Your task to perform on an android device: change your default location settings in chrome Image 0: 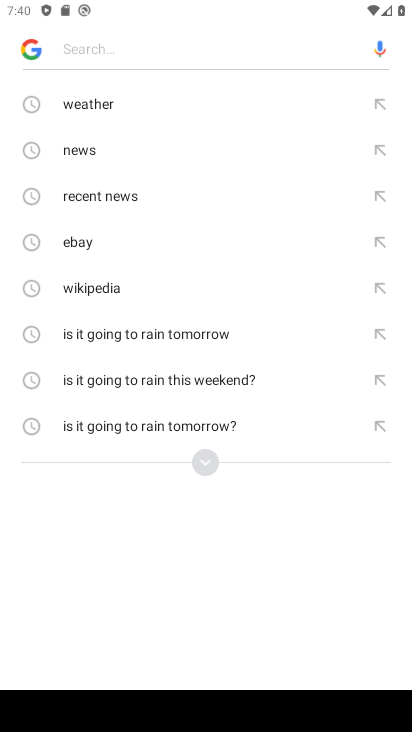
Step 0: press home button
Your task to perform on an android device: change your default location settings in chrome Image 1: 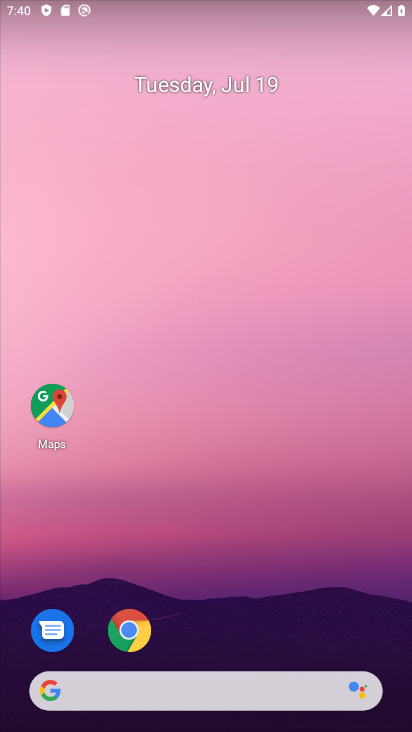
Step 1: click (129, 639)
Your task to perform on an android device: change your default location settings in chrome Image 2: 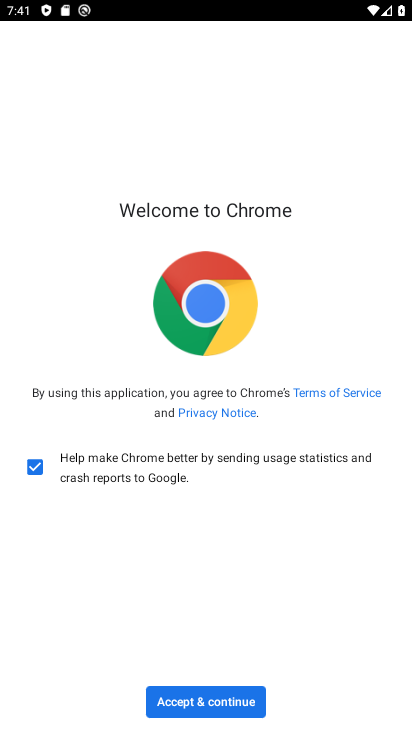
Step 2: click (228, 694)
Your task to perform on an android device: change your default location settings in chrome Image 3: 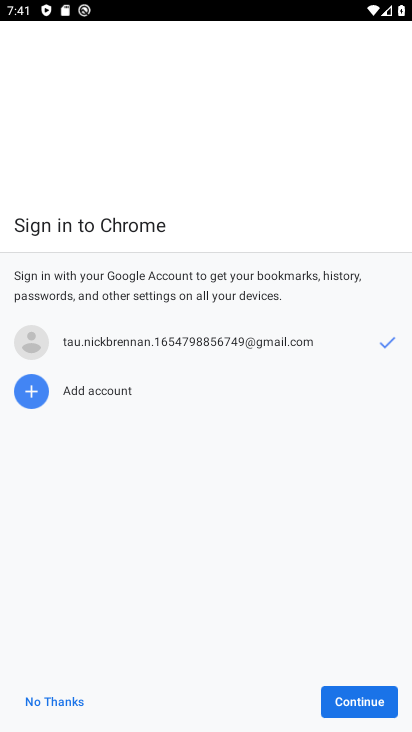
Step 3: click (340, 711)
Your task to perform on an android device: change your default location settings in chrome Image 4: 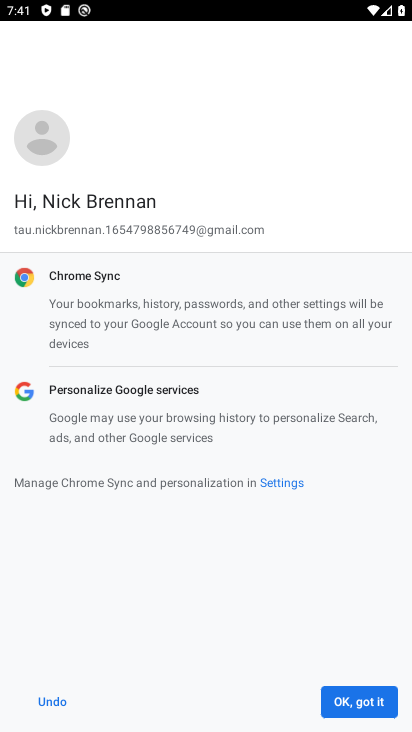
Step 4: click (340, 711)
Your task to perform on an android device: change your default location settings in chrome Image 5: 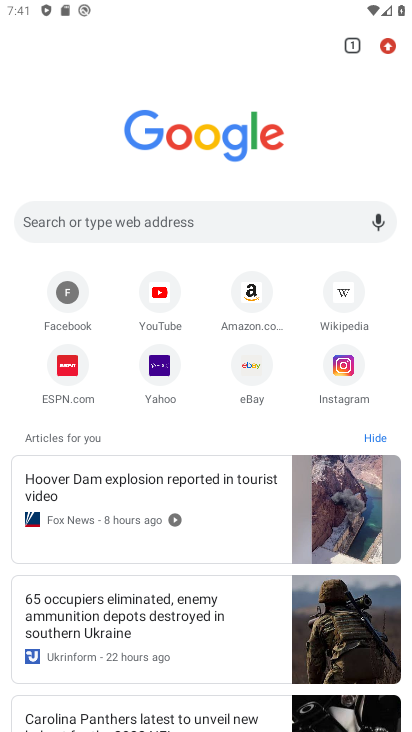
Step 5: click (390, 44)
Your task to perform on an android device: change your default location settings in chrome Image 6: 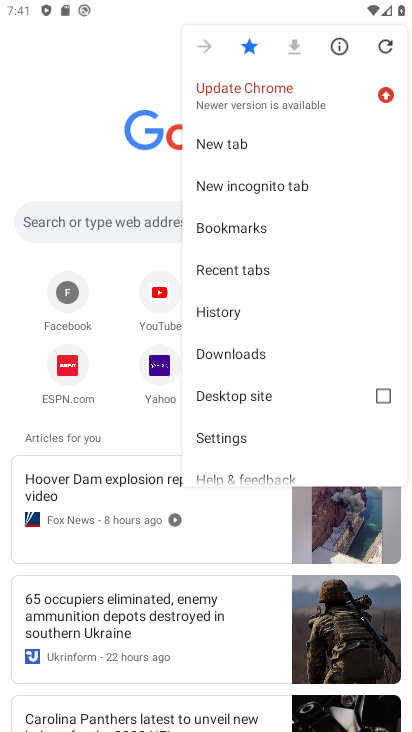
Step 6: click (239, 449)
Your task to perform on an android device: change your default location settings in chrome Image 7: 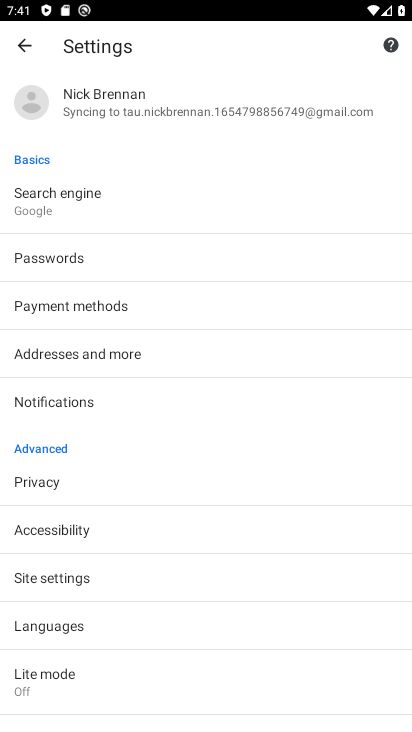
Step 7: drag from (169, 602) to (218, 85)
Your task to perform on an android device: change your default location settings in chrome Image 8: 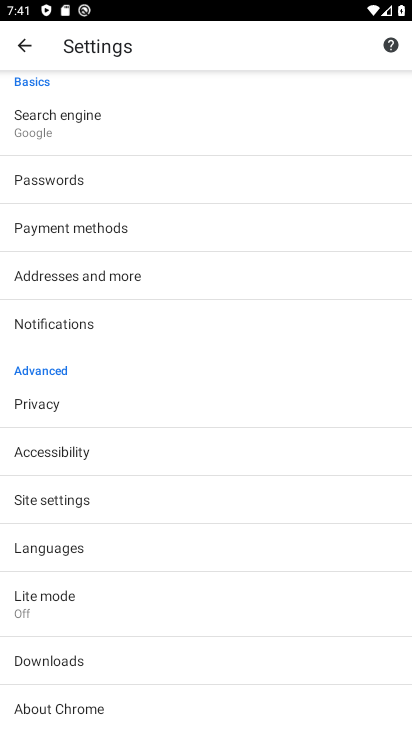
Step 8: drag from (234, 190) to (177, 382)
Your task to perform on an android device: change your default location settings in chrome Image 9: 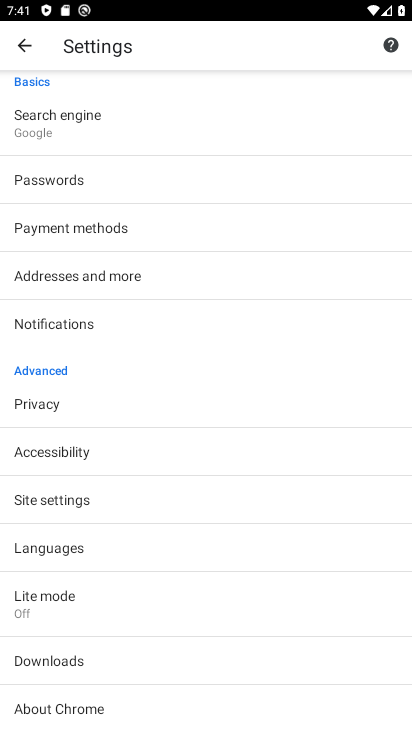
Step 9: click (61, 509)
Your task to perform on an android device: change your default location settings in chrome Image 10: 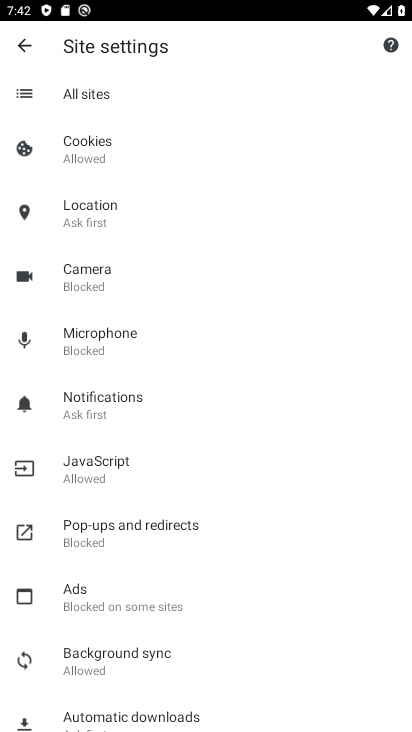
Step 10: click (91, 221)
Your task to perform on an android device: change your default location settings in chrome Image 11: 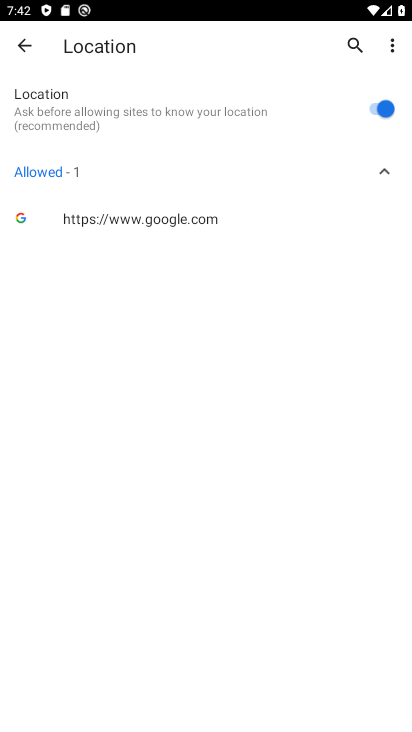
Step 11: click (370, 104)
Your task to perform on an android device: change your default location settings in chrome Image 12: 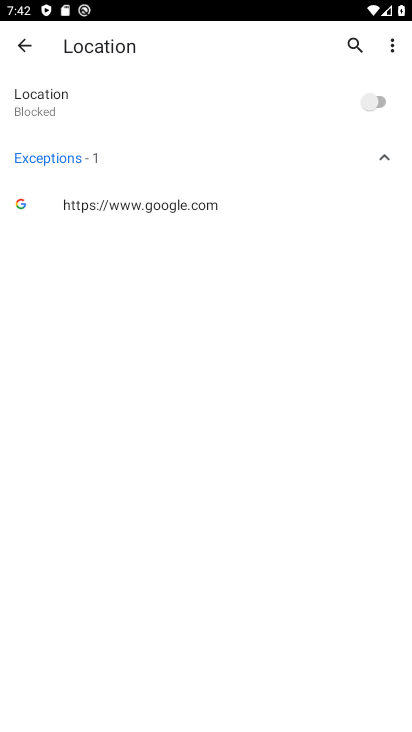
Step 12: task complete